Your task to perform on an android device: change your default location settings in chrome Image 0: 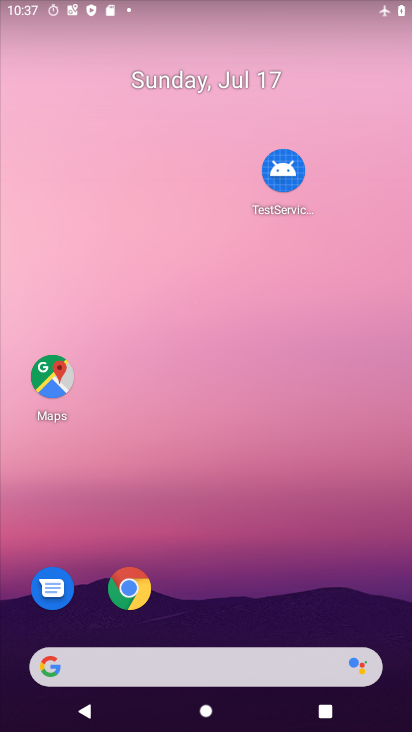
Step 0: drag from (266, 572) to (372, 16)
Your task to perform on an android device: change your default location settings in chrome Image 1: 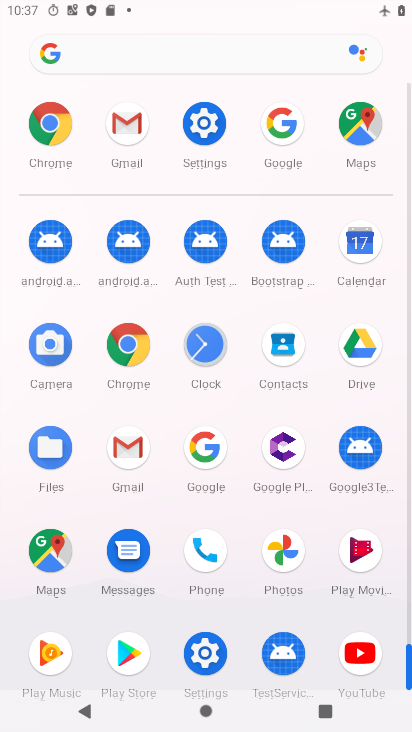
Step 1: click (64, 148)
Your task to perform on an android device: change your default location settings in chrome Image 2: 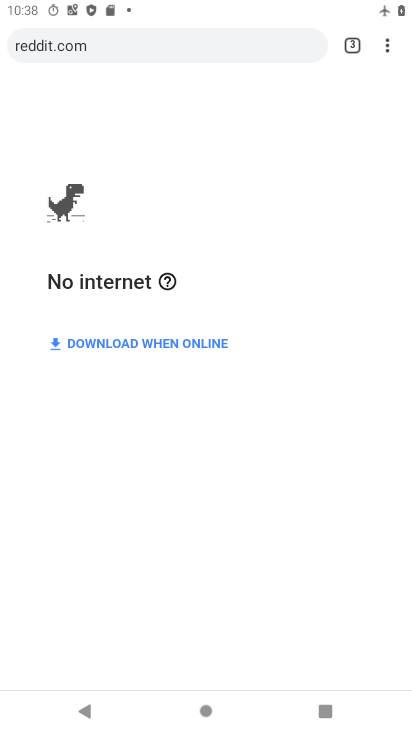
Step 2: click (387, 54)
Your task to perform on an android device: change your default location settings in chrome Image 3: 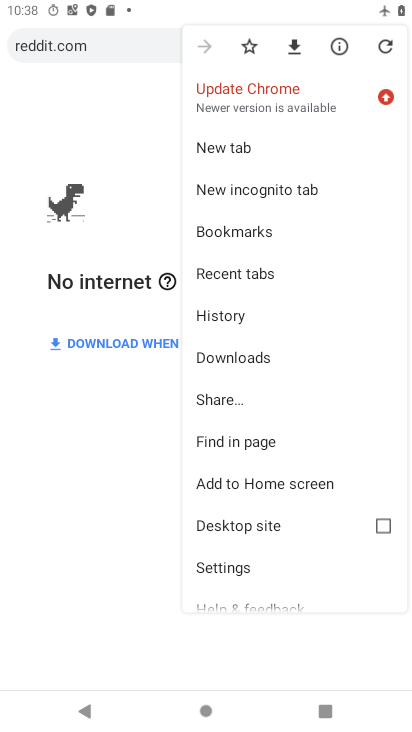
Step 3: click (227, 572)
Your task to perform on an android device: change your default location settings in chrome Image 4: 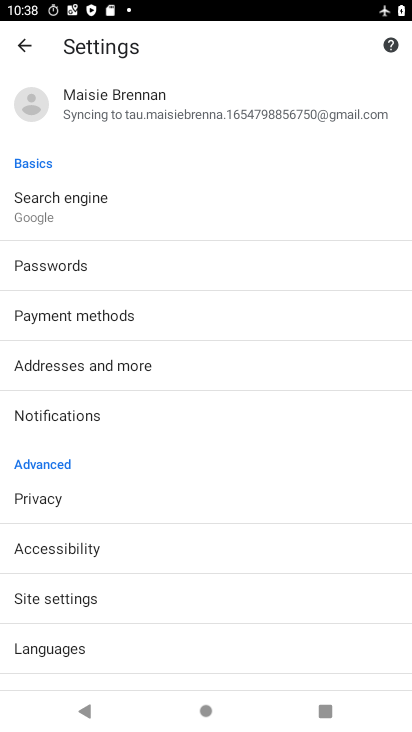
Step 4: click (88, 601)
Your task to perform on an android device: change your default location settings in chrome Image 5: 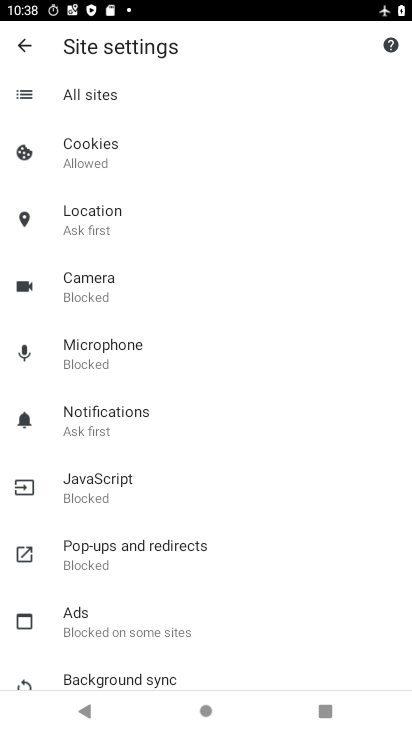
Step 5: click (110, 232)
Your task to perform on an android device: change your default location settings in chrome Image 6: 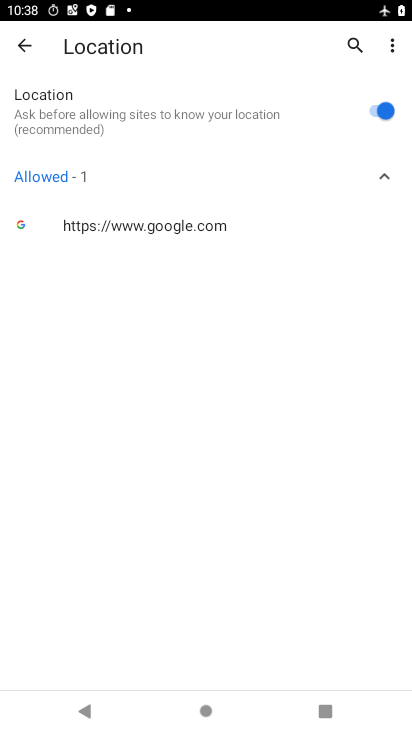
Step 6: click (360, 117)
Your task to perform on an android device: change your default location settings in chrome Image 7: 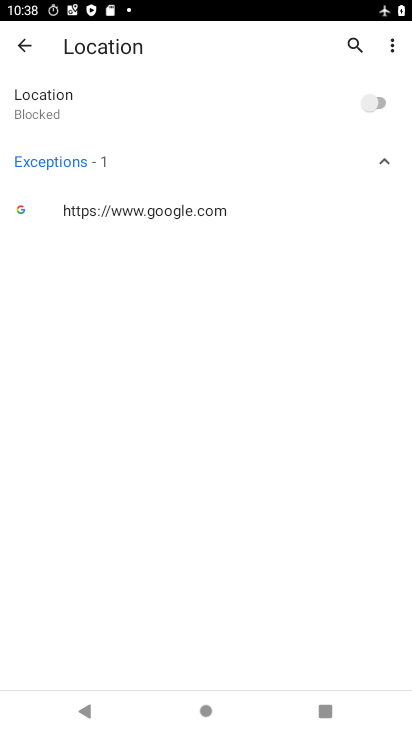
Step 7: task complete